Your task to perform on an android device: open device folders in google photos Image 0: 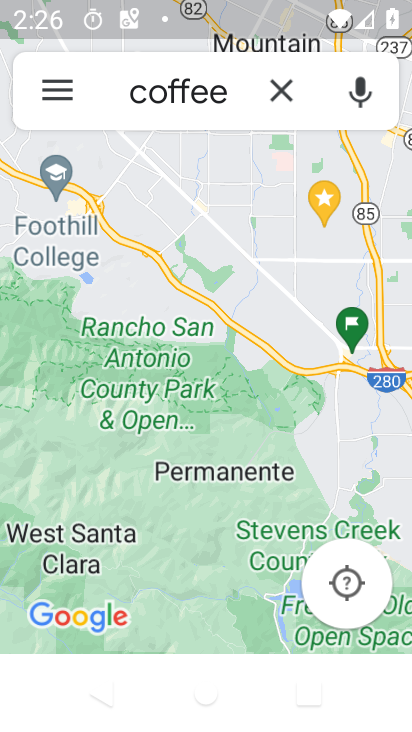
Step 0: press home button
Your task to perform on an android device: open device folders in google photos Image 1: 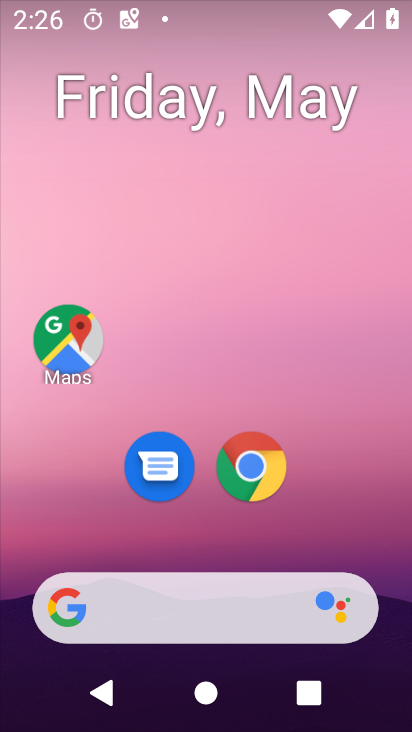
Step 1: click (399, 76)
Your task to perform on an android device: open device folders in google photos Image 2: 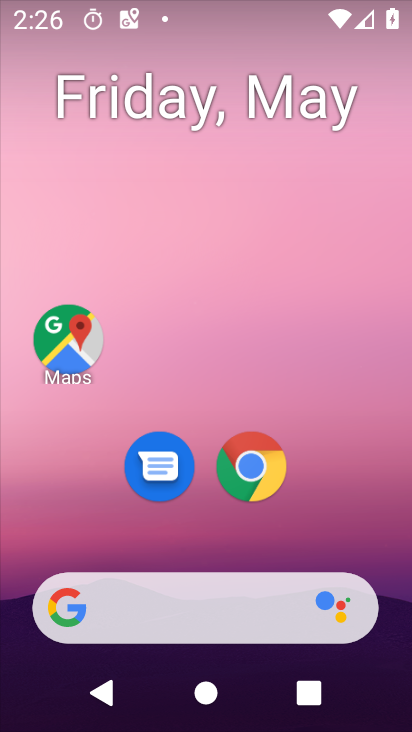
Step 2: drag from (335, 527) to (381, 15)
Your task to perform on an android device: open device folders in google photos Image 3: 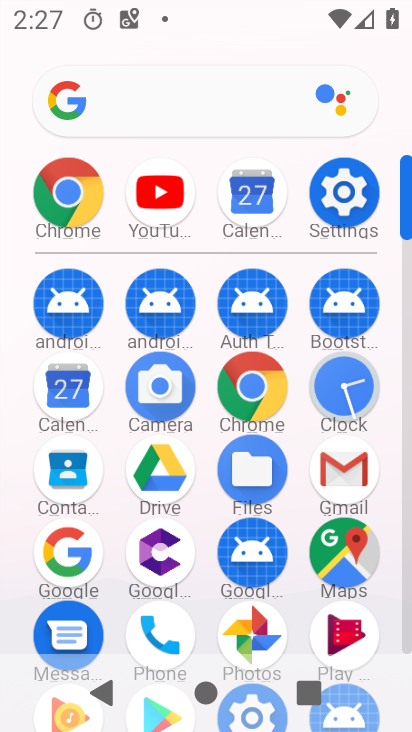
Step 3: click (260, 624)
Your task to perform on an android device: open device folders in google photos Image 4: 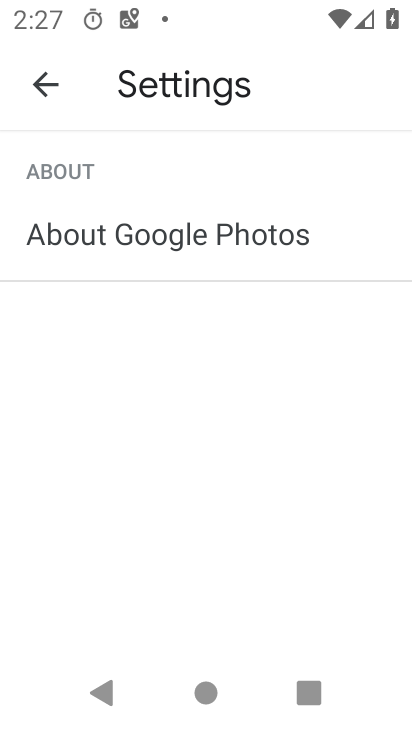
Step 4: click (51, 98)
Your task to perform on an android device: open device folders in google photos Image 5: 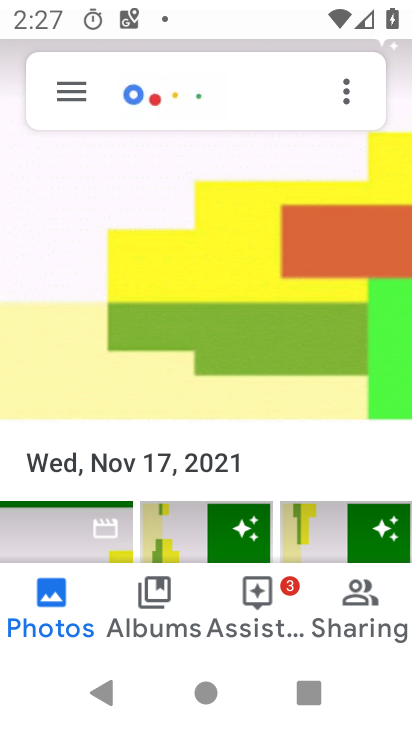
Step 5: click (50, 95)
Your task to perform on an android device: open device folders in google photos Image 6: 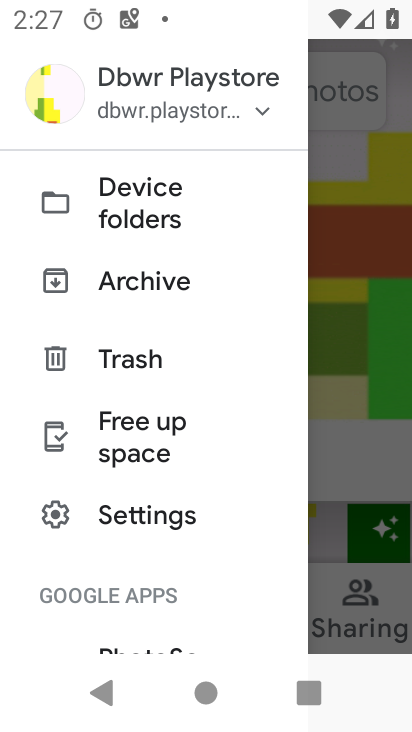
Step 6: click (122, 204)
Your task to perform on an android device: open device folders in google photos Image 7: 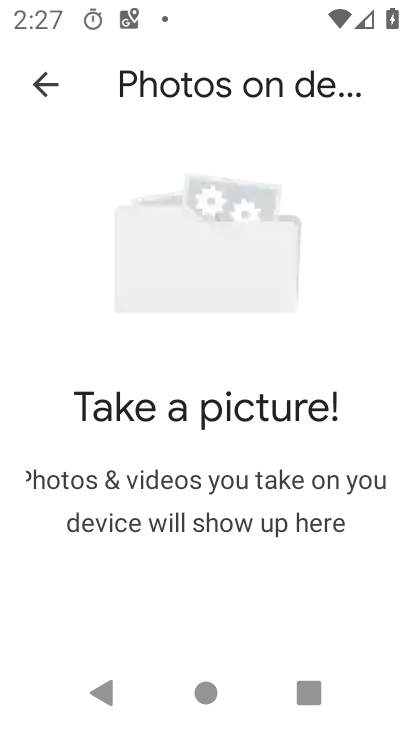
Step 7: task complete